Your task to perform on an android device: toggle notification dots Image 0: 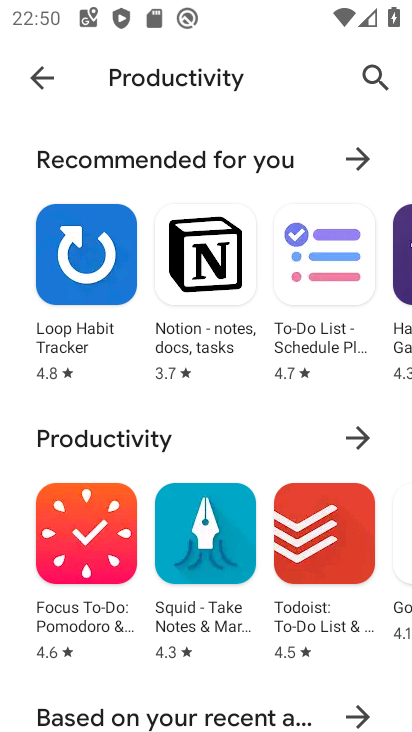
Step 0: press home button
Your task to perform on an android device: toggle notification dots Image 1: 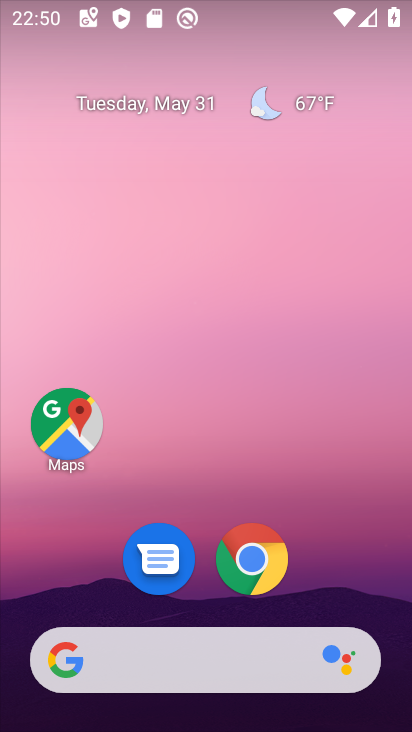
Step 1: drag from (343, 535) to (316, 70)
Your task to perform on an android device: toggle notification dots Image 2: 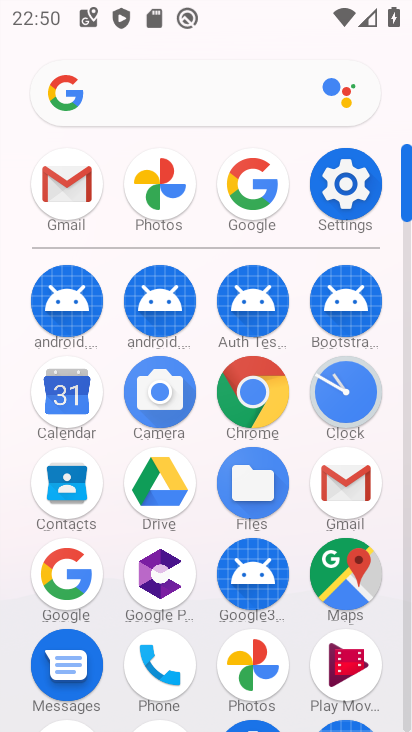
Step 2: click (347, 182)
Your task to perform on an android device: toggle notification dots Image 3: 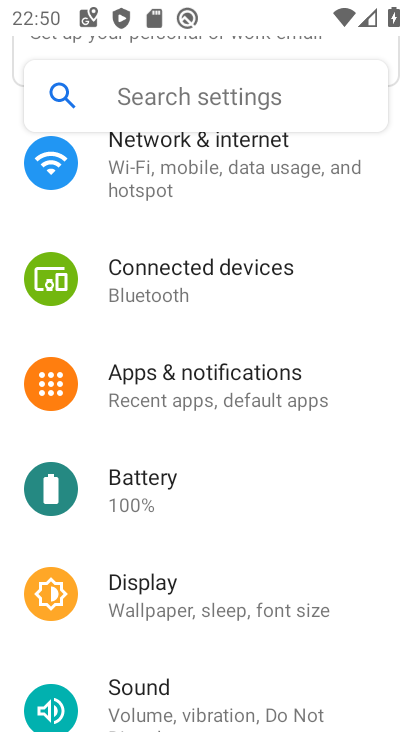
Step 3: click (198, 396)
Your task to perform on an android device: toggle notification dots Image 4: 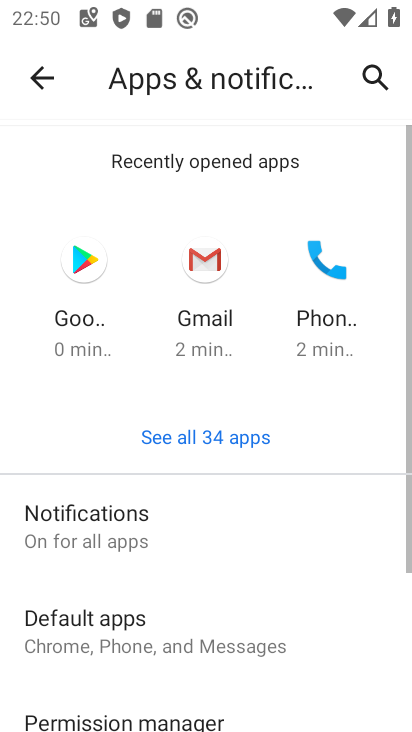
Step 4: click (142, 539)
Your task to perform on an android device: toggle notification dots Image 5: 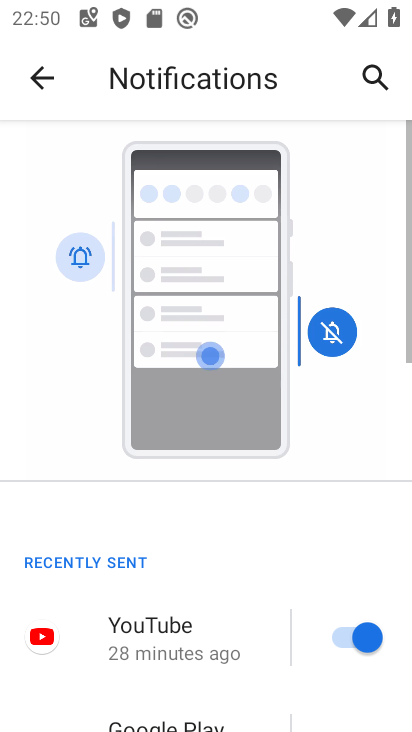
Step 5: drag from (220, 561) to (190, 34)
Your task to perform on an android device: toggle notification dots Image 6: 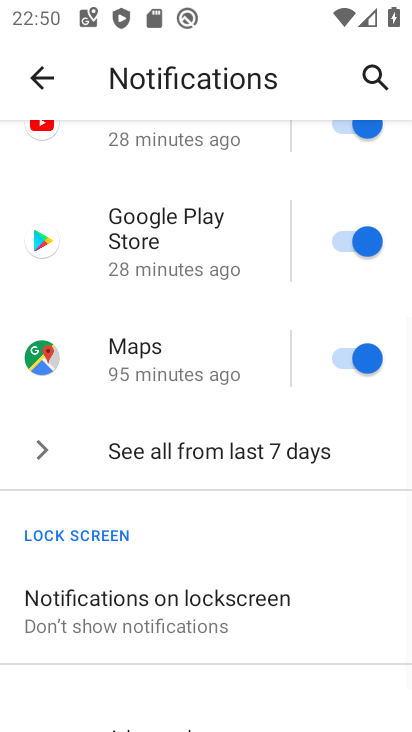
Step 6: drag from (191, 632) to (259, 155)
Your task to perform on an android device: toggle notification dots Image 7: 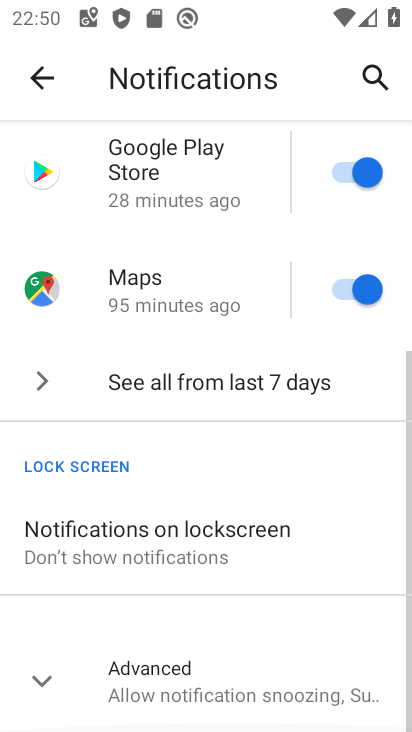
Step 7: click (132, 683)
Your task to perform on an android device: toggle notification dots Image 8: 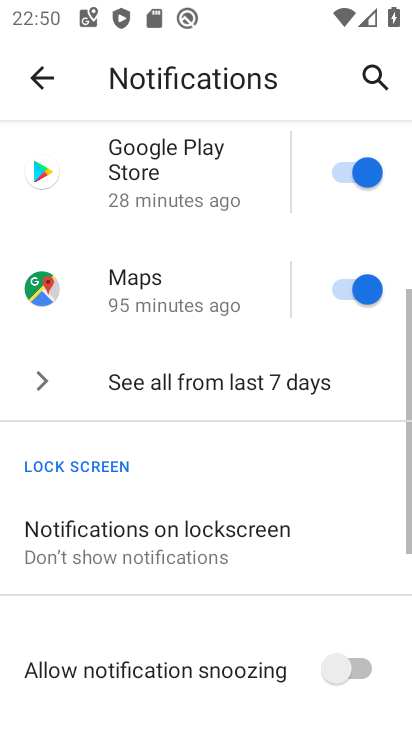
Step 8: drag from (257, 595) to (217, 200)
Your task to perform on an android device: toggle notification dots Image 9: 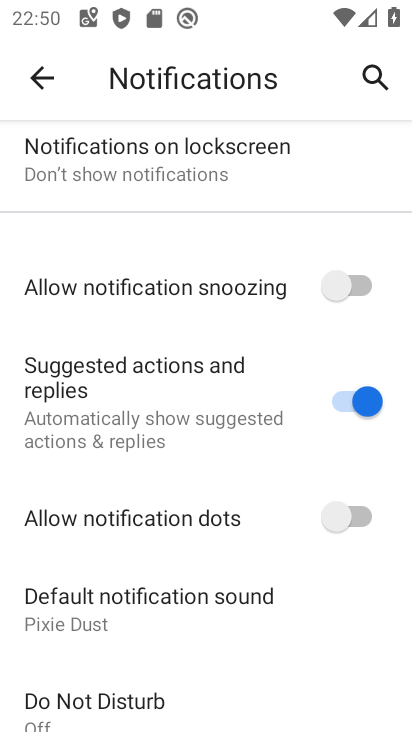
Step 9: click (344, 516)
Your task to perform on an android device: toggle notification dots Image 10: 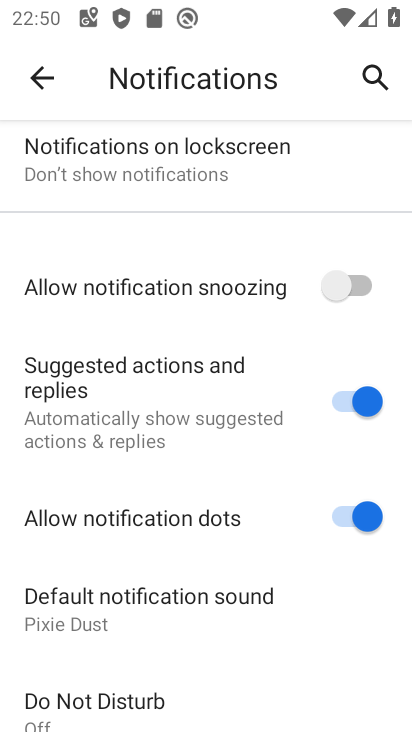
Step 10: task complete